Your task to perform on an android device: Open calendar and show me the second week of next month Image 0: 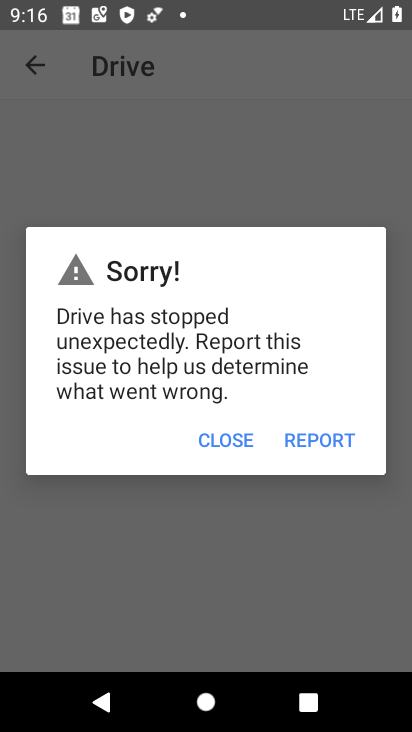
Step 0: press home button
Your task to perform on an android device: Open calendar and show me the second week of next month Image 1: 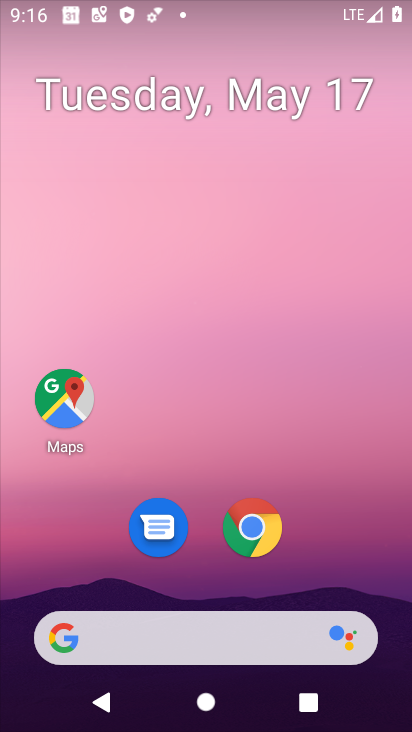
Step 1: click (335, 204)
Your task to perform on an android device: Open calendar and show me the second week of next month Image 2: 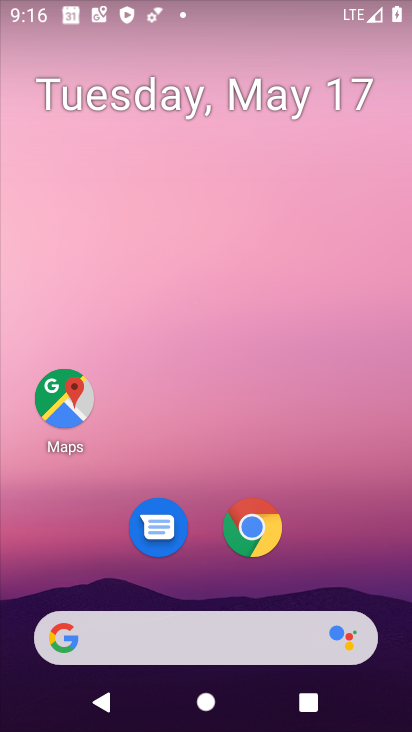
Step 2: drag from (236, 525) to (361, 141)
Your task to perform on an android device: Open calendar and show me the second week of next month Image 3: 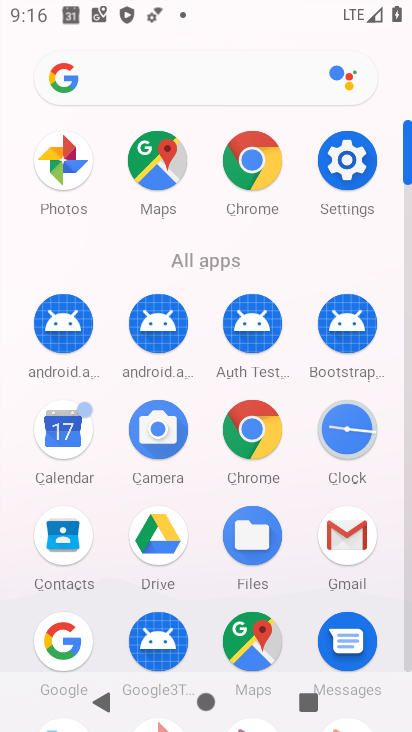
Step 3: click (71, 442)
Your task to perform on an android device: Open calendar and show me the second week of next month Image 4: 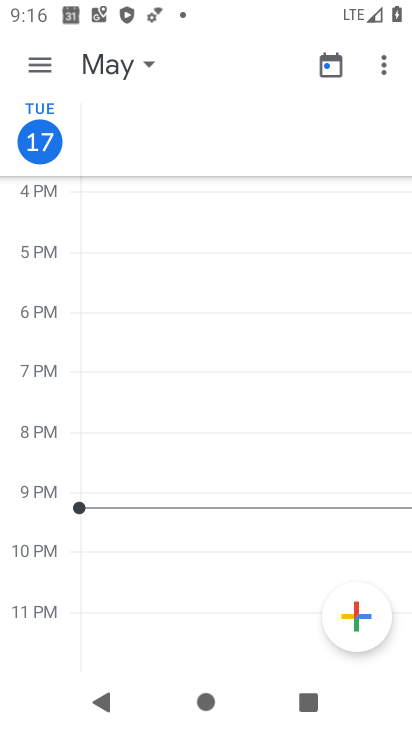
Step 4: click (115, 60)
Your task to perform on an android device: Open calendar and show me the second week of next month Image 5: 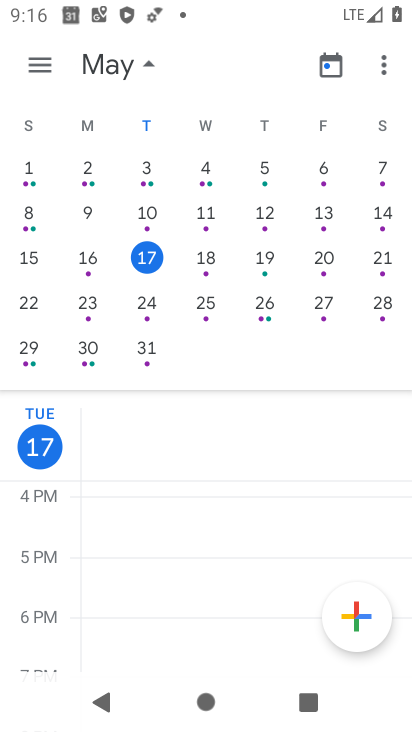
Step 5: drag from (386, 239) to (21, 271)
Your task to perform on an android device: Open calendar and show me the second week of next month Image 6: 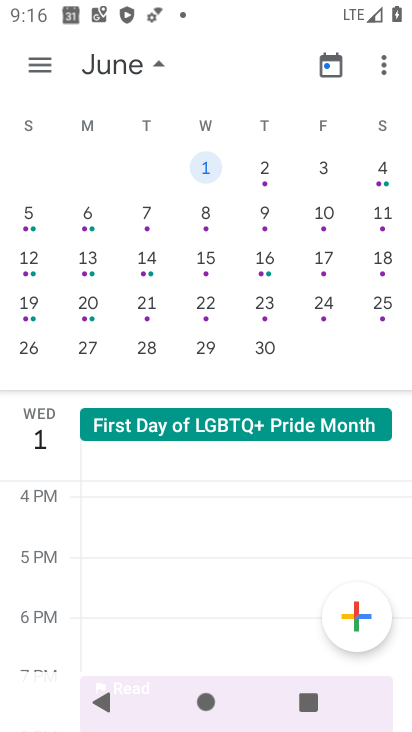
Step 6: click (34, 221)
Your task to perform on an android device: Open calendar and show me the second week of next month Image 7: 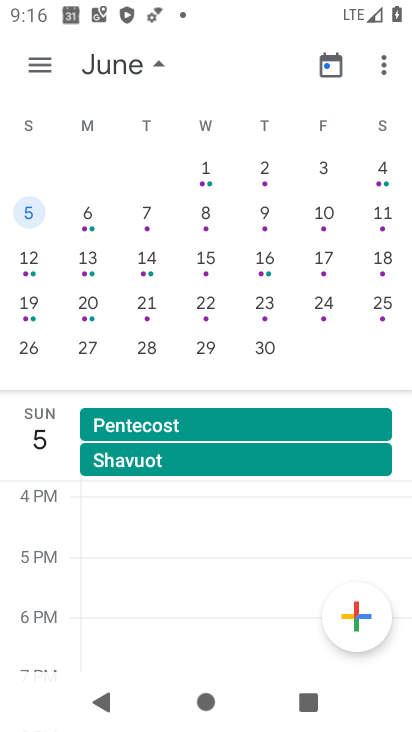
Step 7: click (42, 65)
Your task to perform on an android device: Open calendar and show me the second week of next month Image 8: 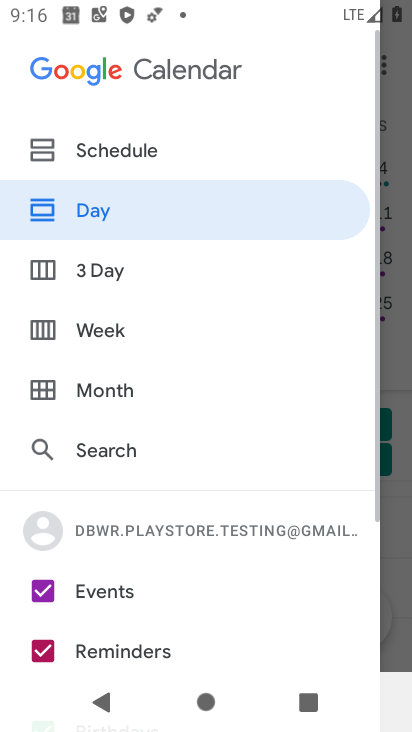
Step 8: click (113, 325)
Your task to perform on an android device: Open calendar and show me the second week of next month Image 9: 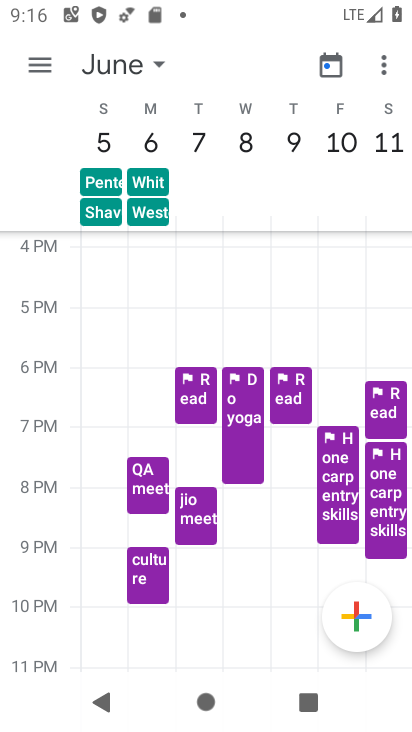
Step 9: task complete